Your task to perform on an android device: Go to sound settings Image 0: 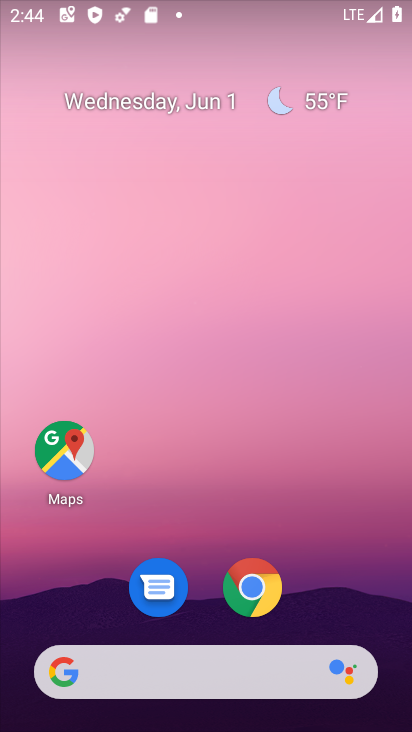
Step 0: drag from (186, 678) to (227, 388)
Your task to perform on an android device: Go to sound settings Image 1: 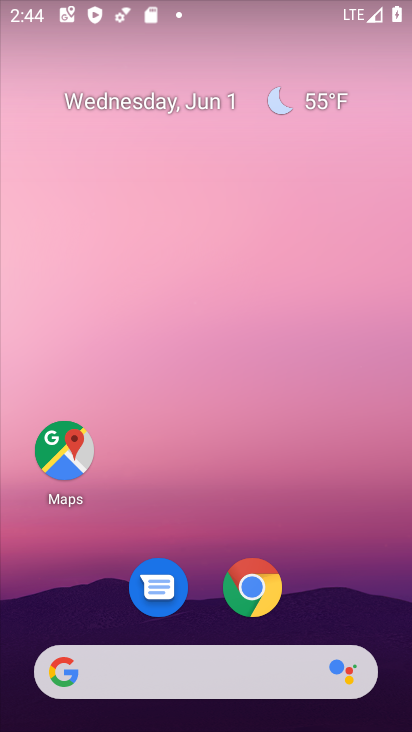
Step 1: drag from (230, 660) to (301, 67)
Your task to perform on an android device: Go to sound settings Image 2: 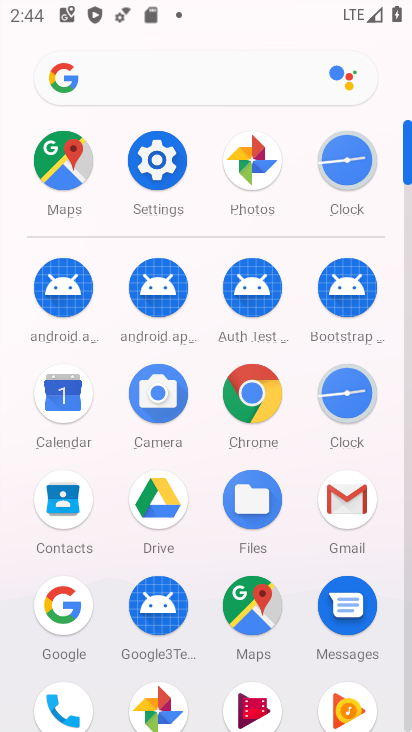
Step 2: click (171, 157)
Your task to perform on an android device: Go to sound settings Image 3: 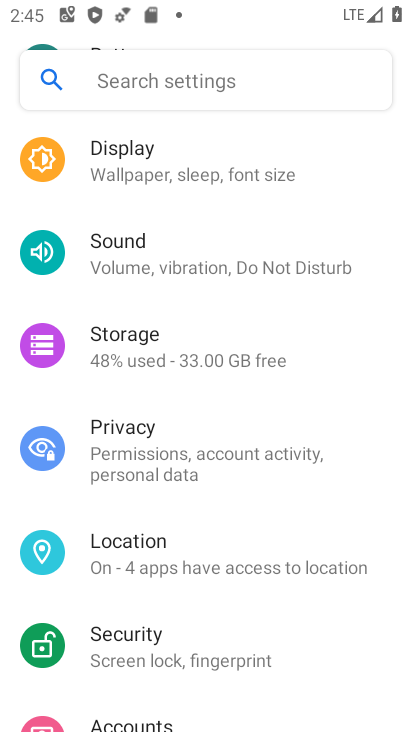
Step 3: click (167, 247)
Your task to perform on an android device: Go to sound settings Image 4: 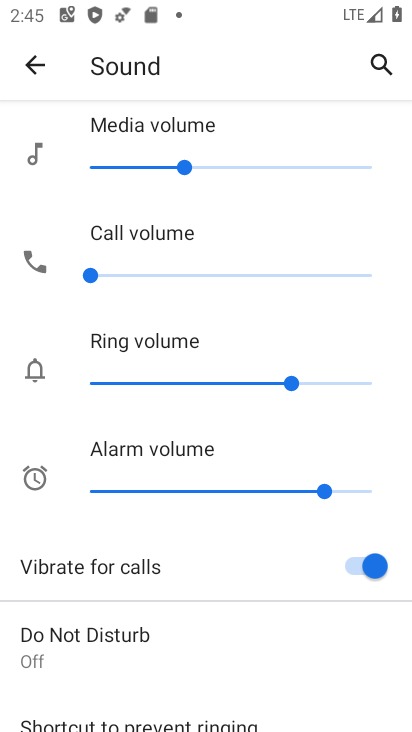
Step 4: task complete